Your task to perform on an android device: install app "VLC for Android" Image 0: 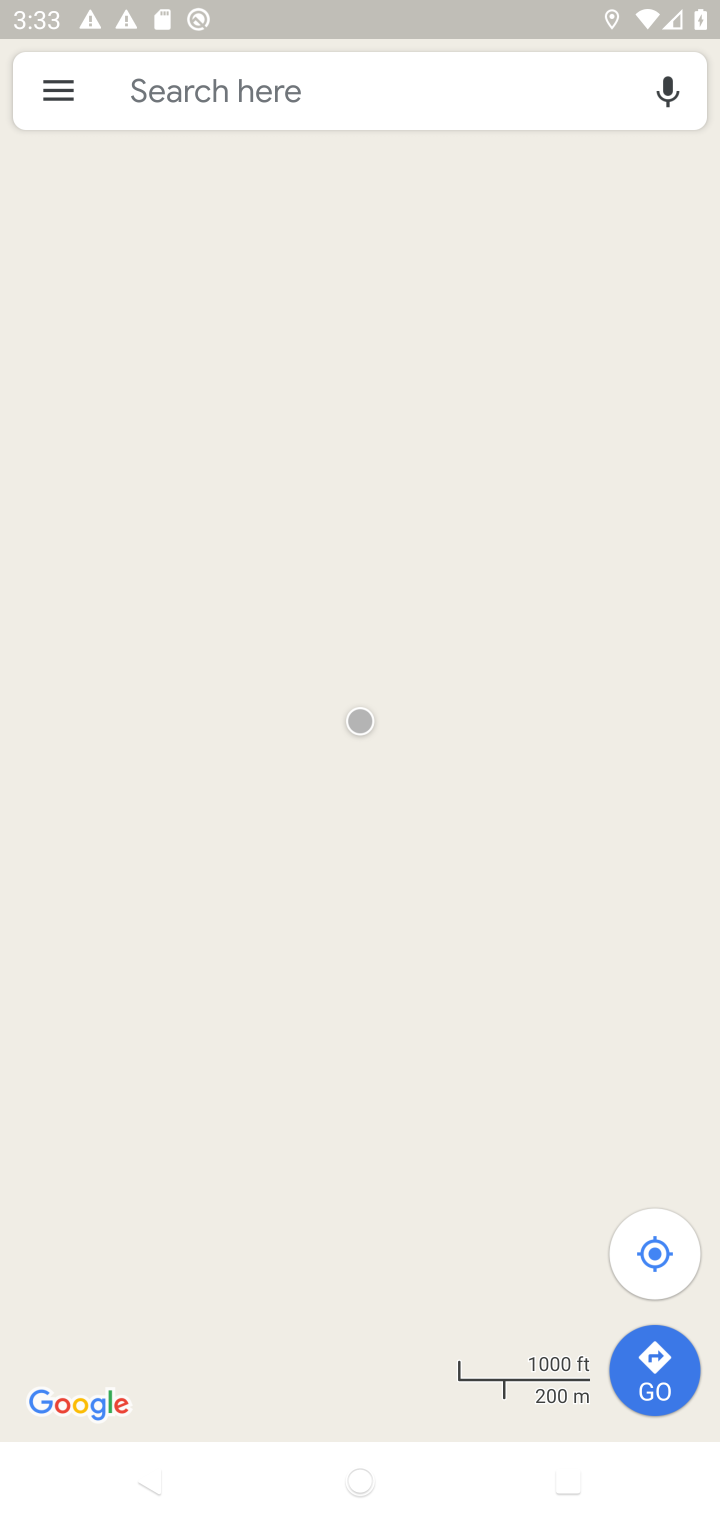
Step 0: press home button
Your task to perform on an android device: install app "VLC for Android" Image 1: 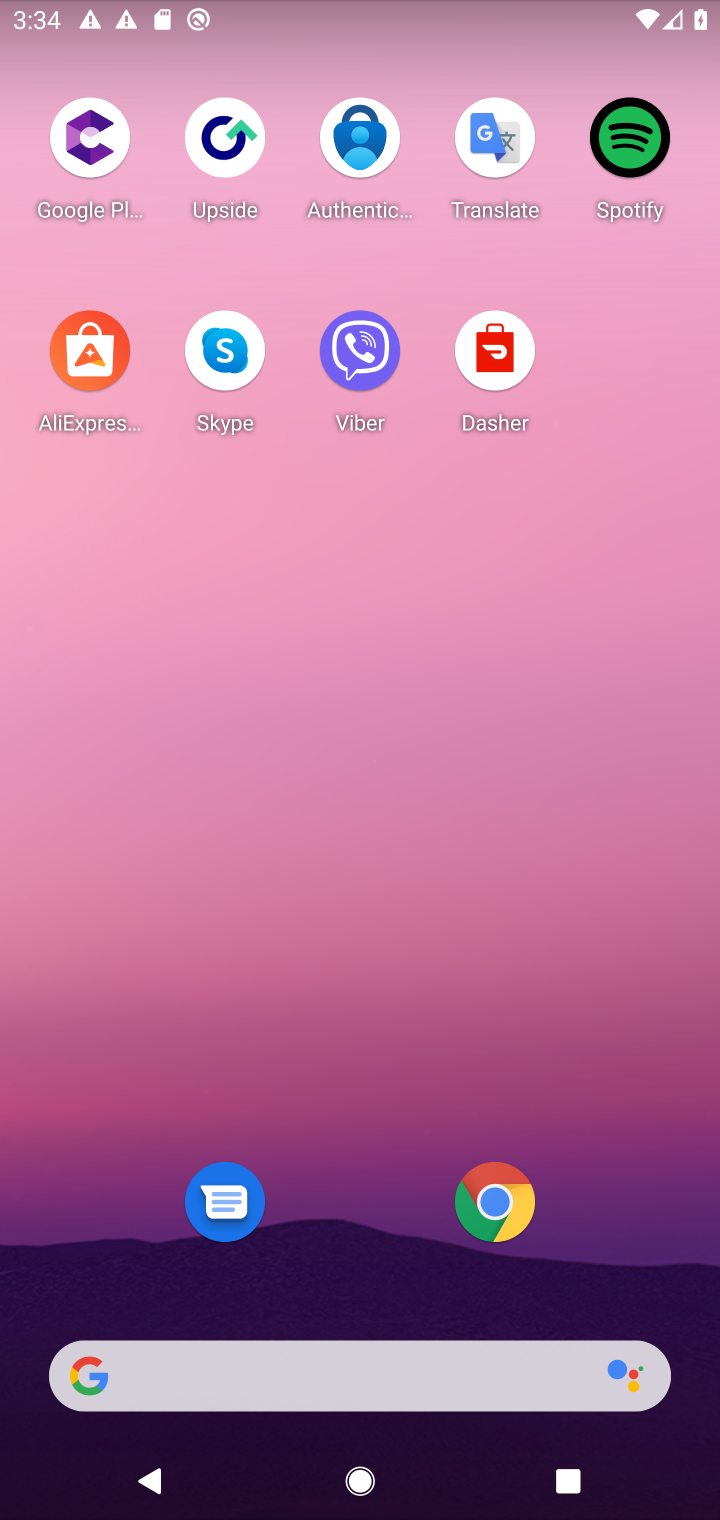
Step 1: press home button
Your task to perform on an android device: install app "VLC for Android" Image 2: 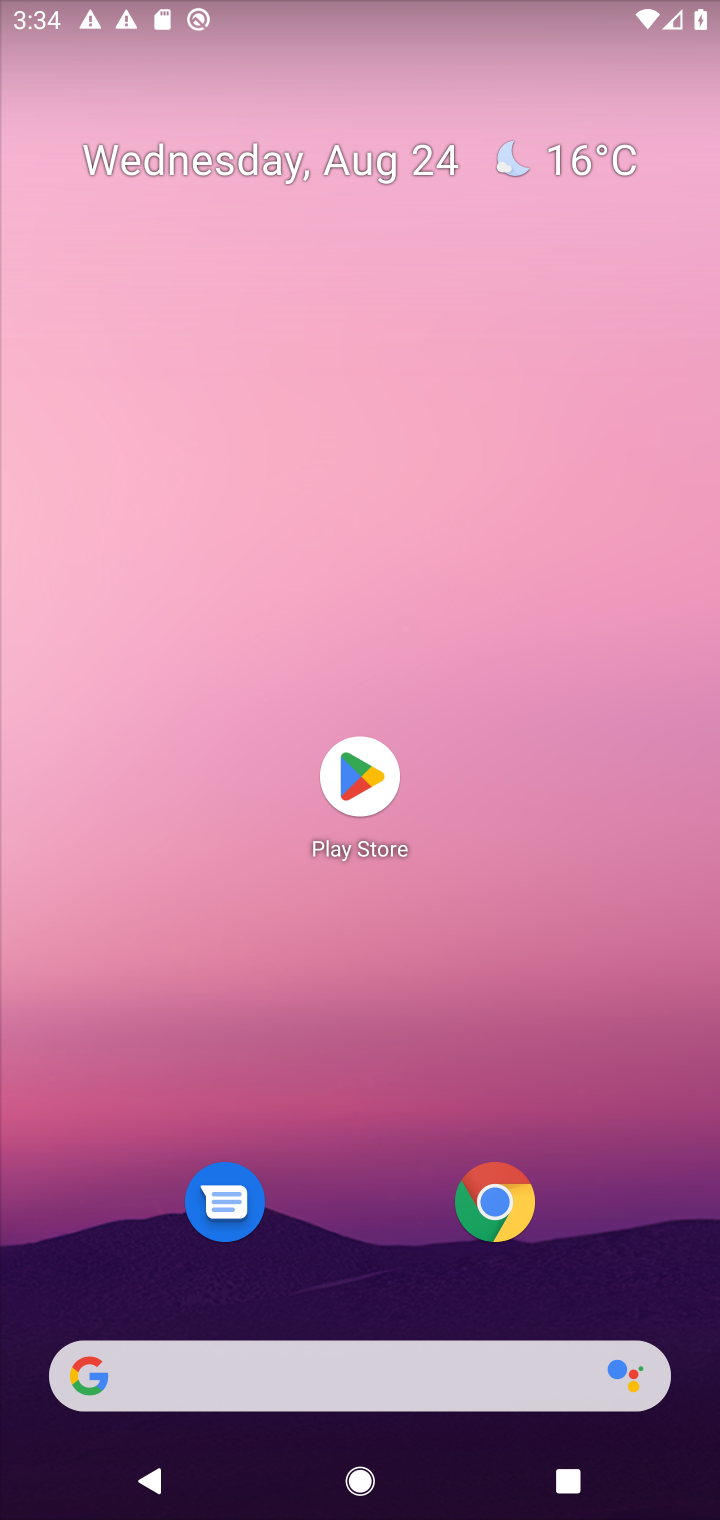
Step 2: click (358, 784)
Your task to perform on an android device: install app "VLC for Android" Image 3: 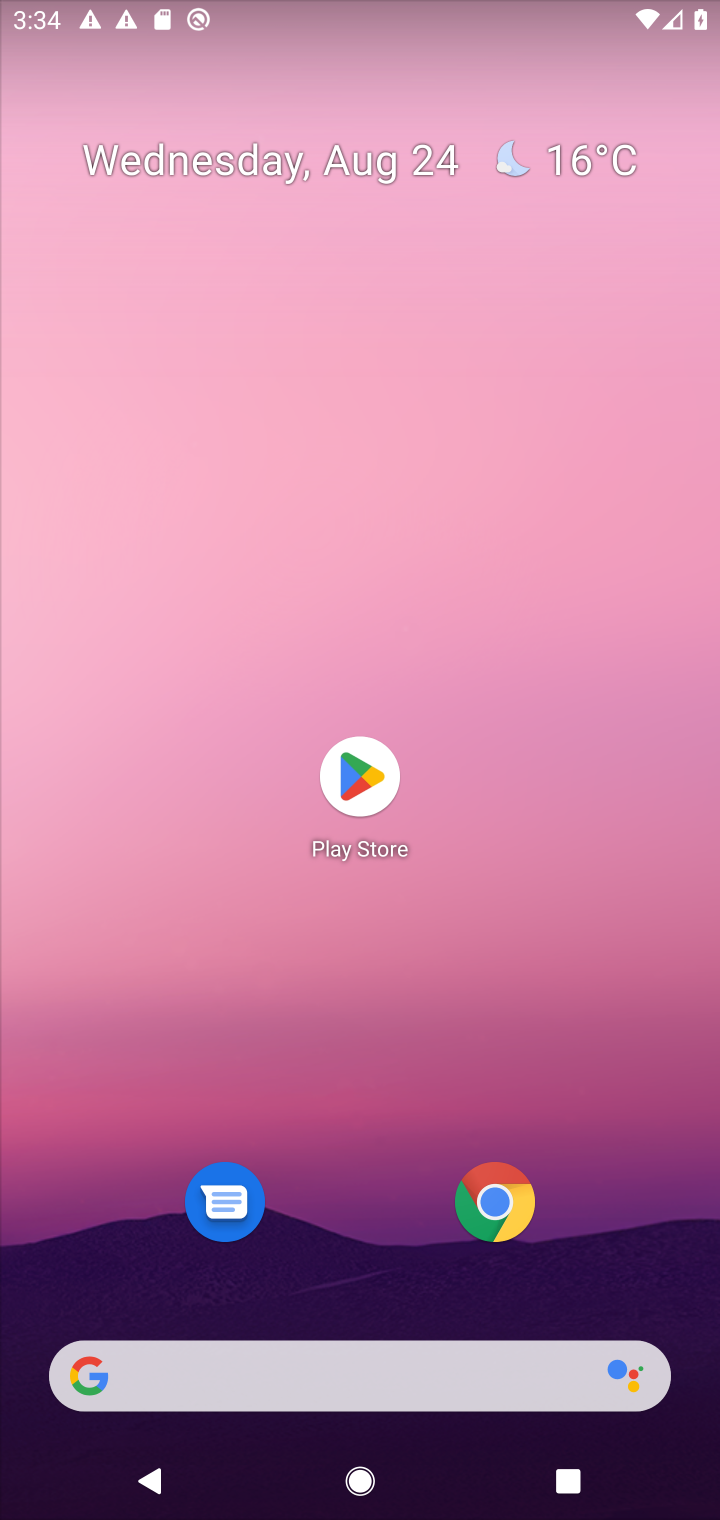
Step 3: click (356, 800)
Your task to perform on an android device: install app "VLC for Android" Image 4: 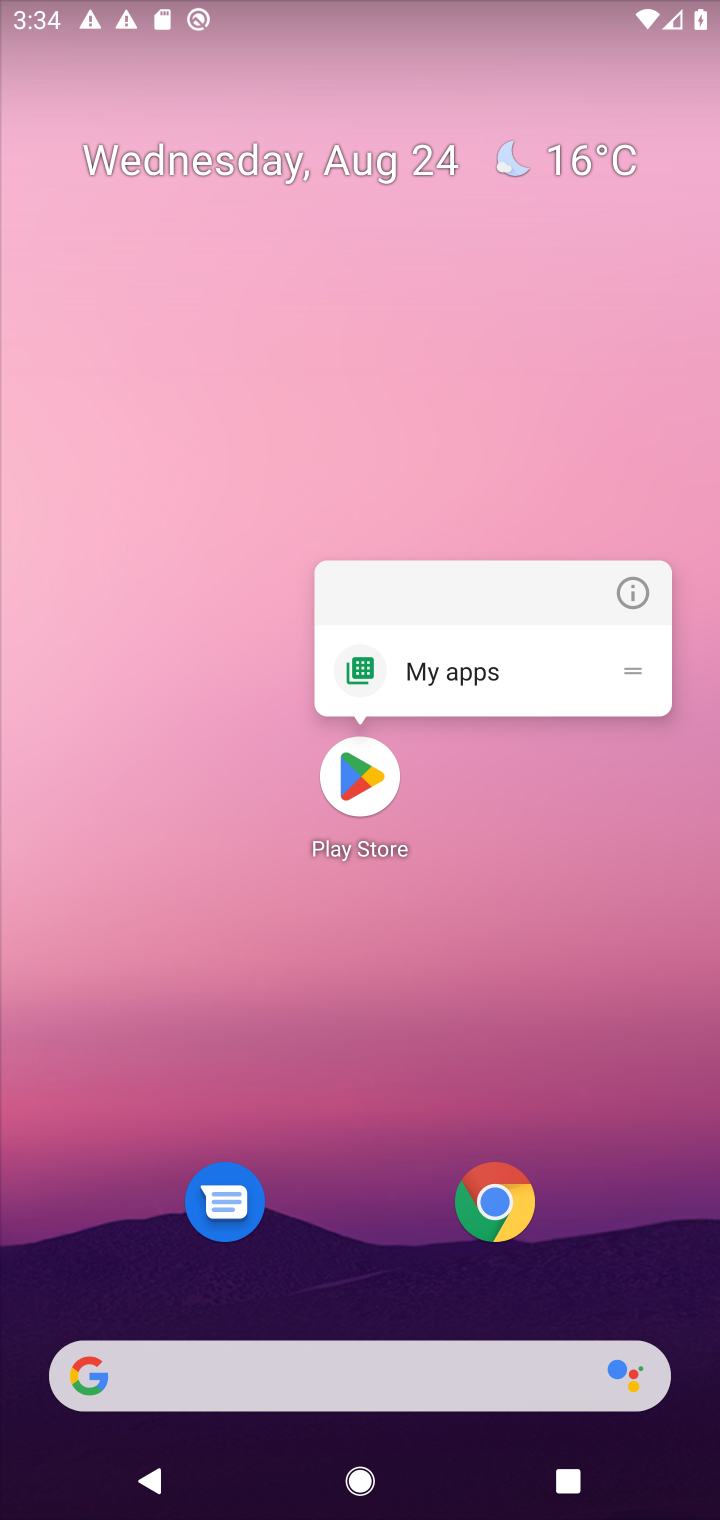
Step 4: click (356, 790)
Your task to perform on an android device: install app "VLC for Android" Image 5: 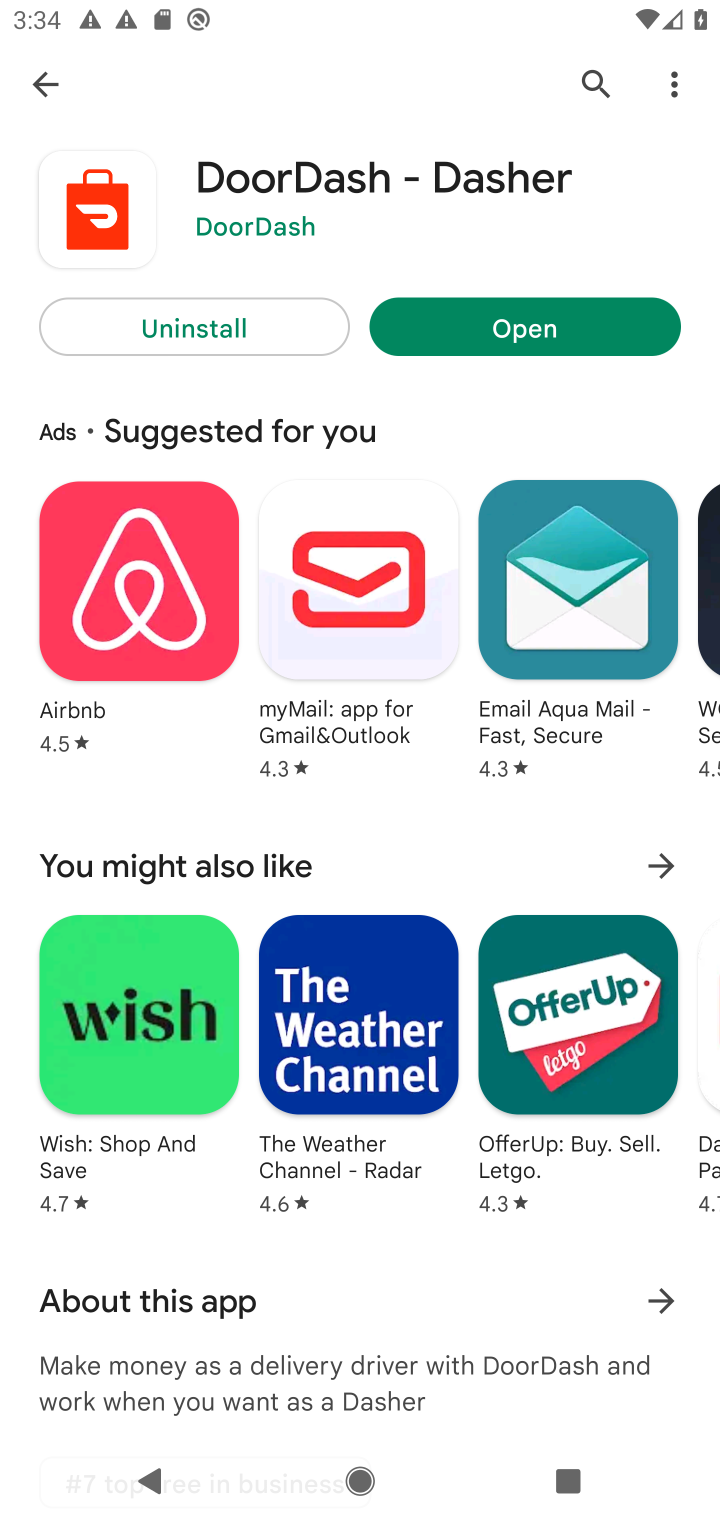
Step 5: click (601, 81)
Your task to perform on an android device: install app "VLC for Android" Image 6: 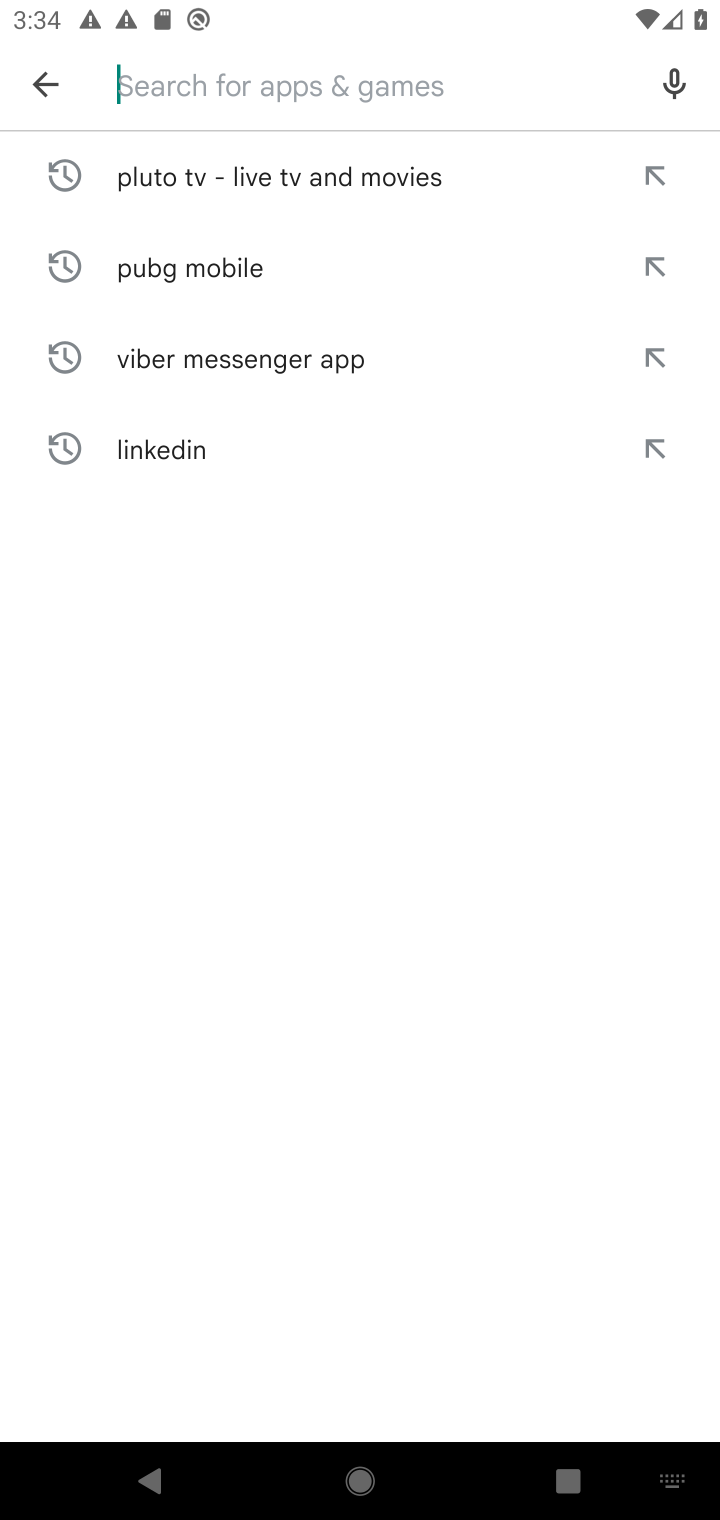
Step 6: type "VLC for Android"
Your task to perform on an android device: install app "VLC for Android" Image 7: 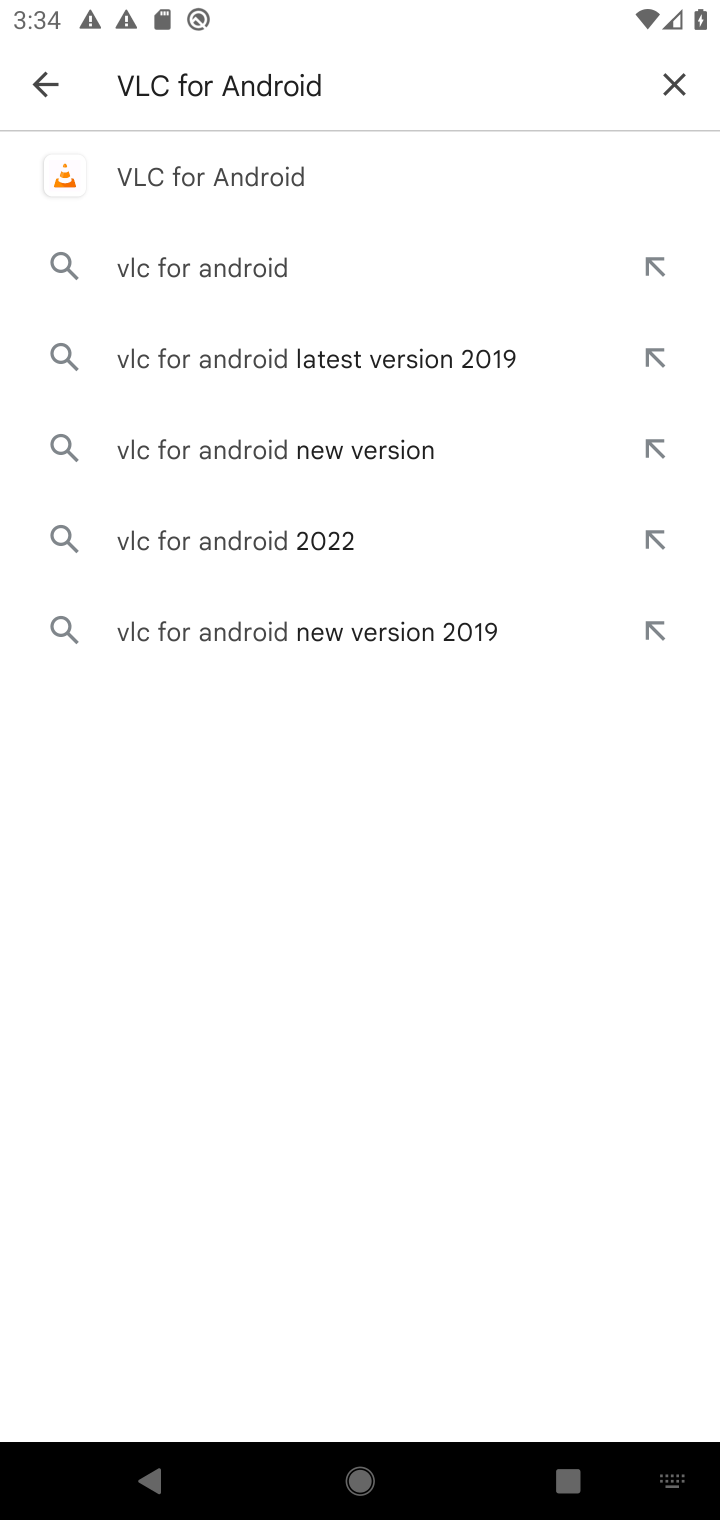
Step 7: click (234, 159)
Your task to perform on an android device: install app "VLC for Android" Image 8: 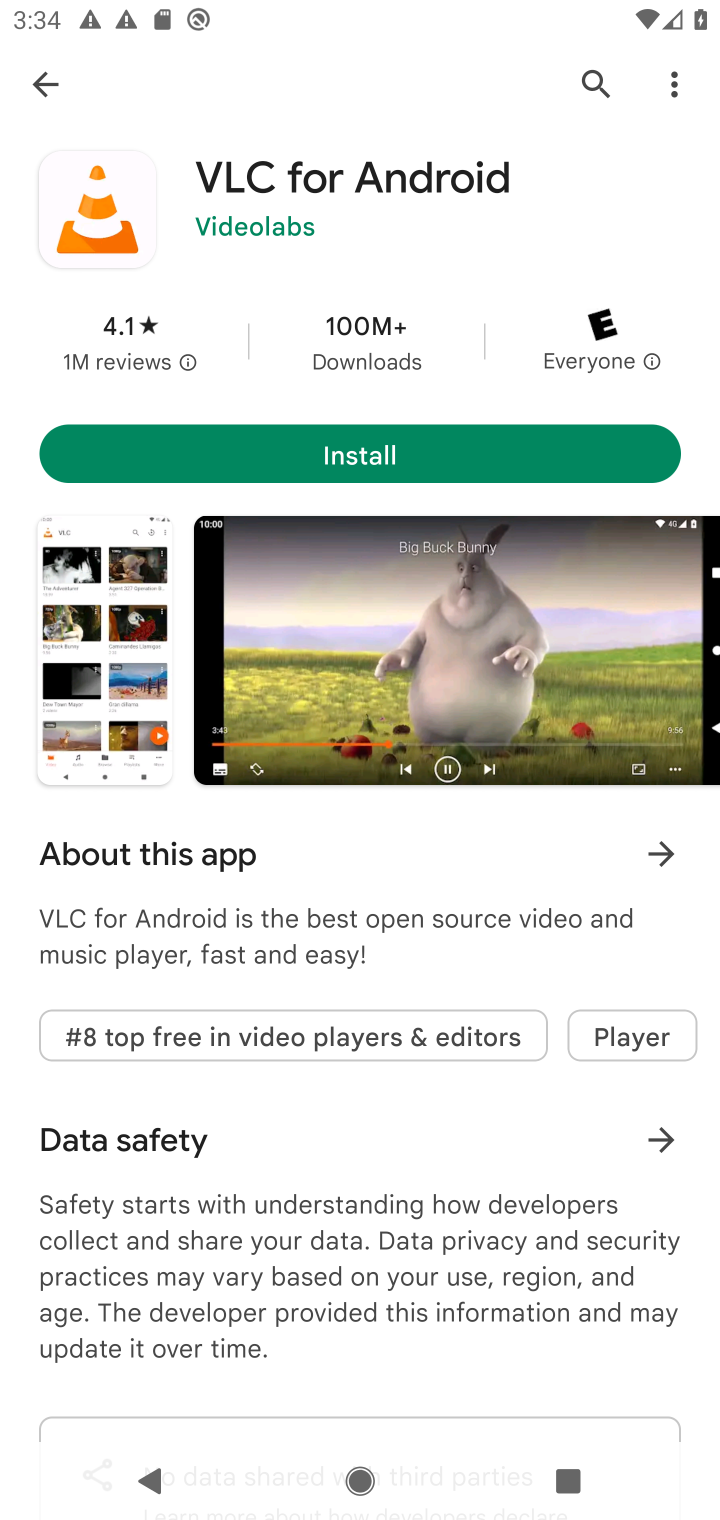
Step 8: click (388, 447)
Your task to perform on an android device: install app "VLC for Android" Image 9: 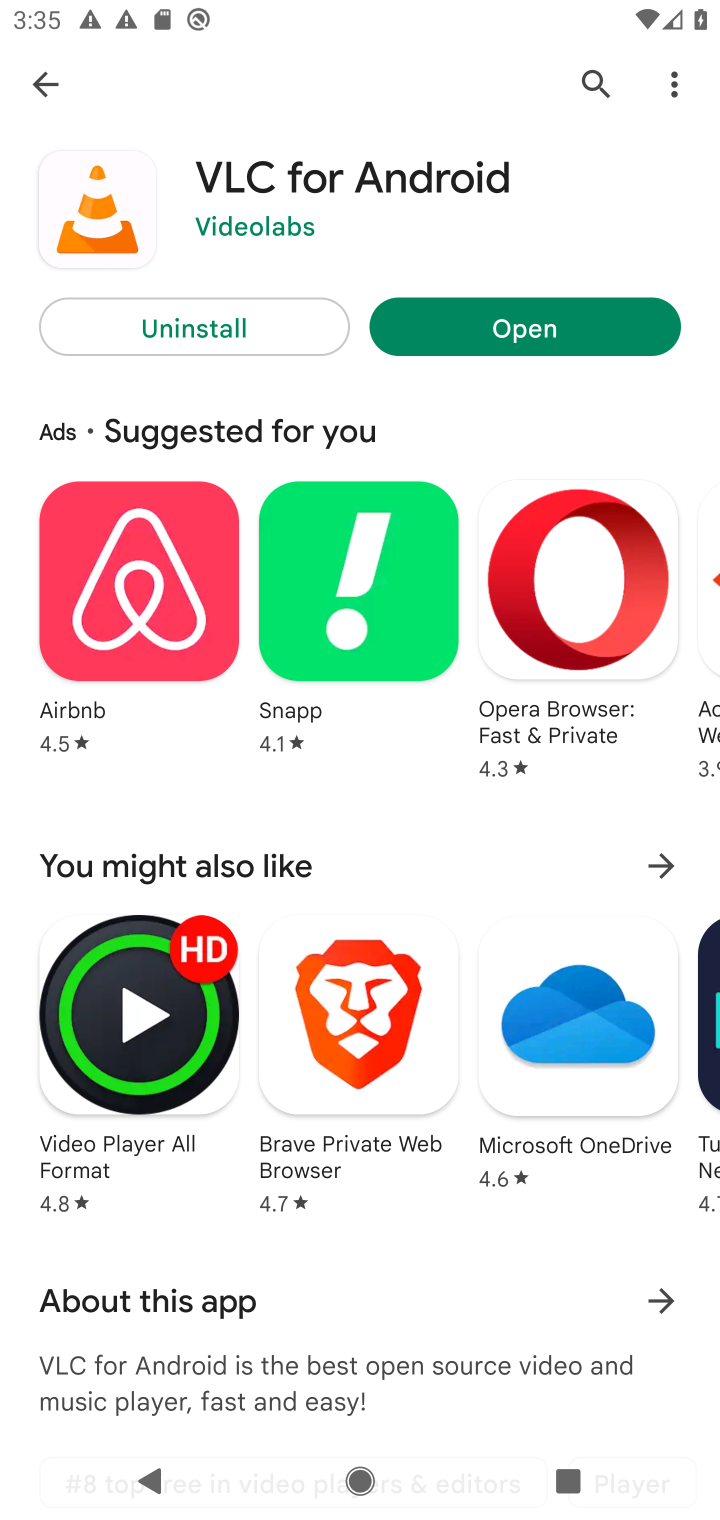
Step 9: task complete